Your task to perform on an android device: Open calendar and show me the second week of next month Image 0: 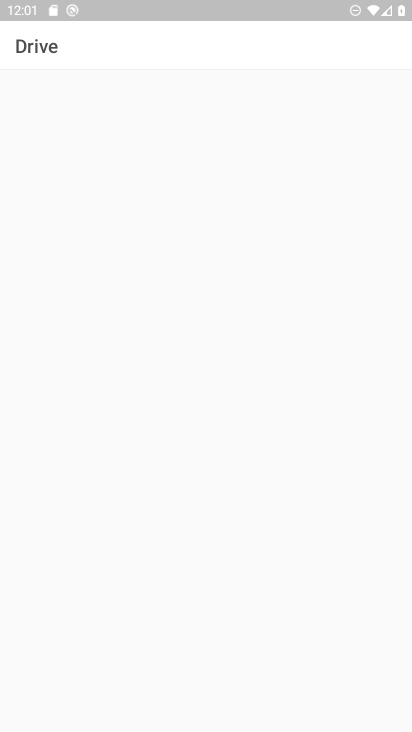
Step 0: press home button
Your task to perform on an android device: Open calendar and show me the second week of next month Image 1: 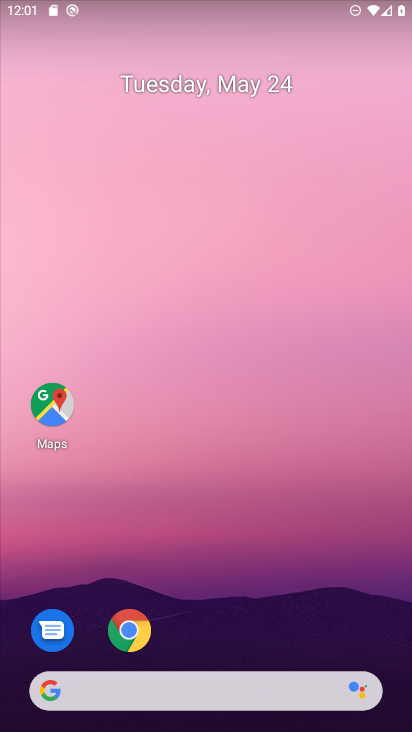
Step 1: drag from (187, 550) to (224, 160)
Your task to perform on an android device: Open calendar and show me the second week of next month Image 2: 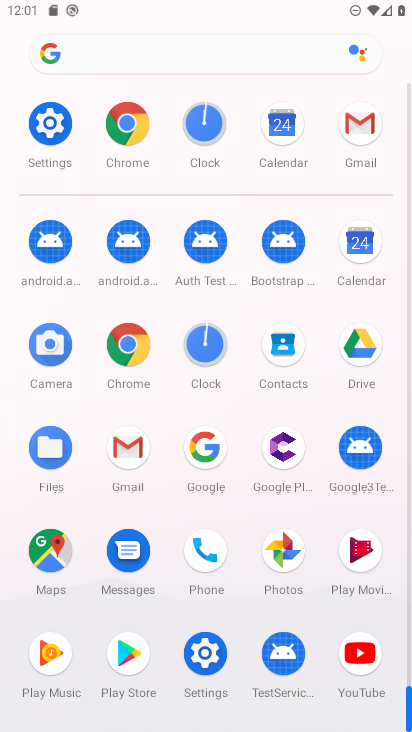
Step 2: click (364, 246)
Your task to perform on an android device: Open calendar and show me the second week of next month Image 3: 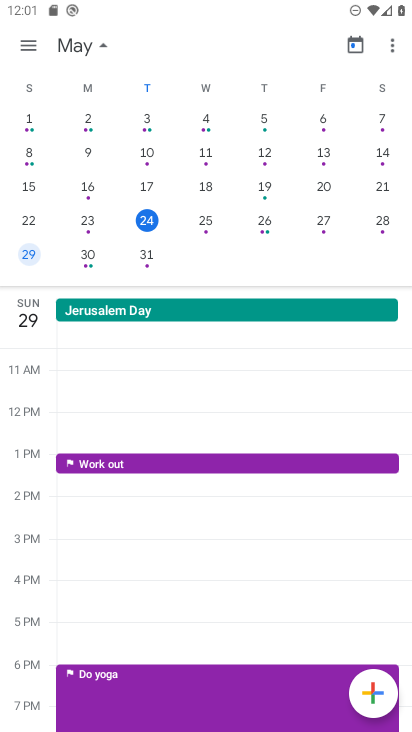
Step 3: drag from (390, 134) to (38, 108)
Your task to perform on an android device: Open calendar and show me the second week of next month Image 4: 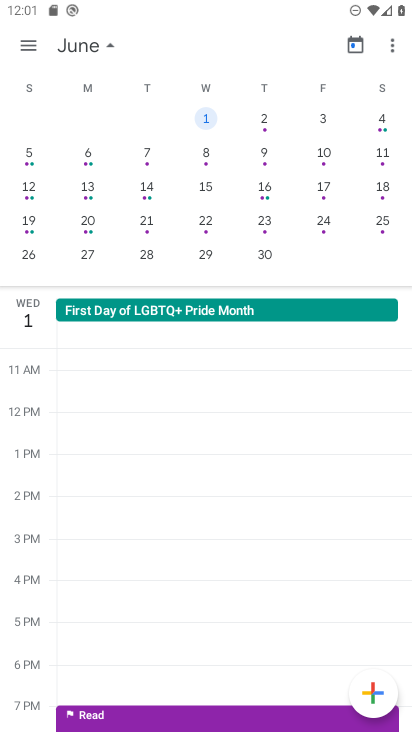
Step 4: click (195, 144)
Your task to perform on an android device: Open calendar and show me the second week of next month Image 5: 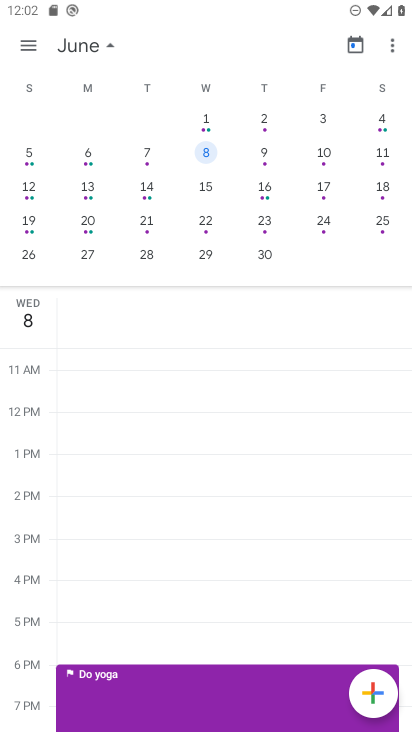
Step 5: click (147, 144)
Your task to perform on an android device: Open calendar and show me the second week of next month Image 6: 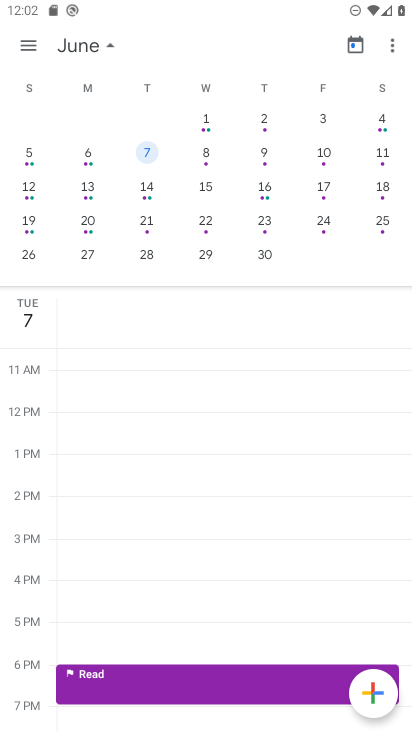
Step 6: click (26, 46)
Your task to perform on an android device: Open calendar and show me the second week of next month Image 7: 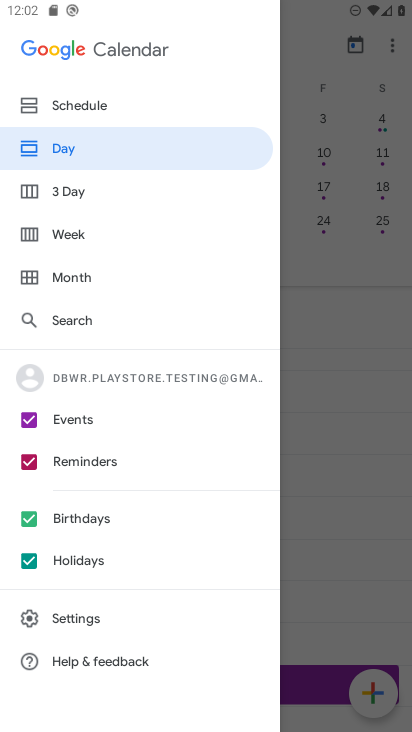
Step 7: click (91, 233)
Your task to perform on an android device: Open calendar and show me the second week of next month Image 8: 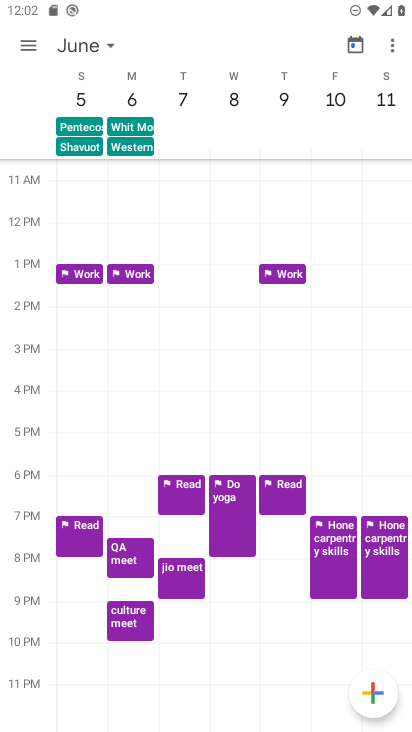
Step 8: task complete